Your task to perform on an android device: Open settings Image 0: 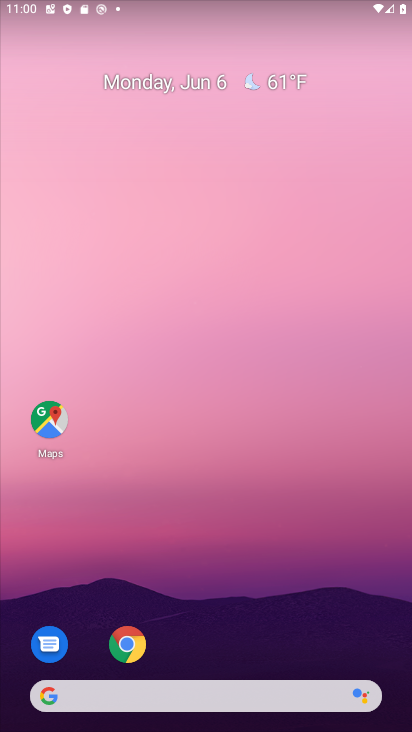
Step 0: drag from (231, 679) to (202, 141)
Your task to perform on an android device: Open settings Image 1: 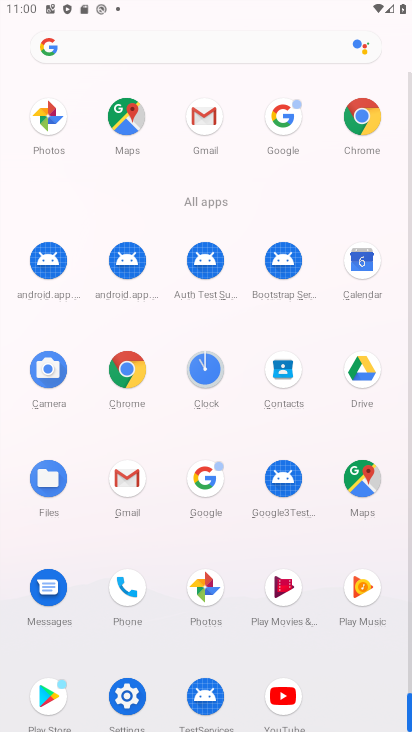
Step 1: drag from (249, 517) to (241, 117)
Your task to perform on an android device: Open settings Image 2: 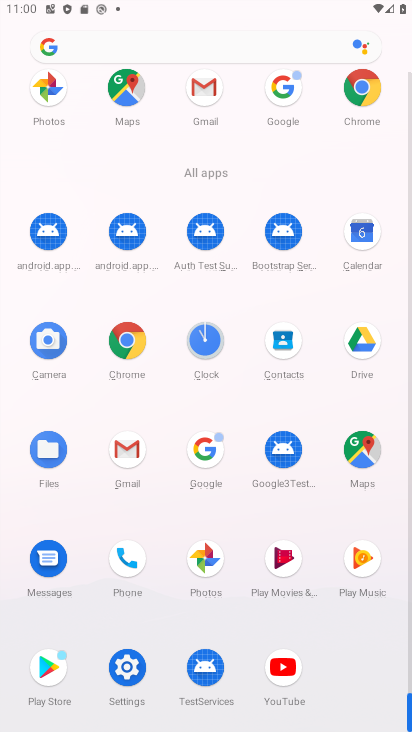
Step 2: click (141, 672)
Your task to perform on an android device: Open settings Image 3: 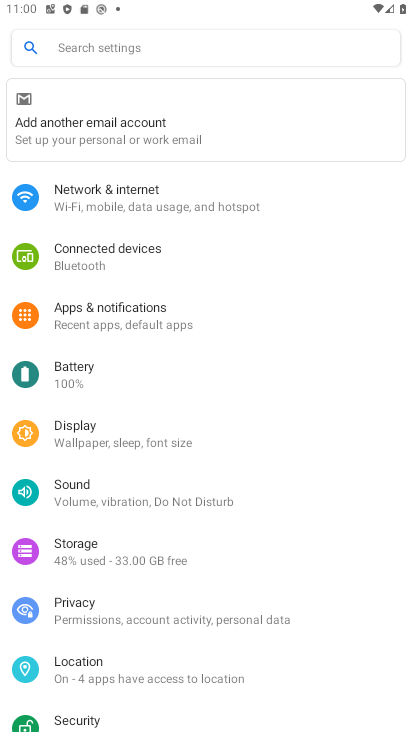
Step 3: task complete